Your task to perform on an android device: Go to Yahoo.com Image 0: 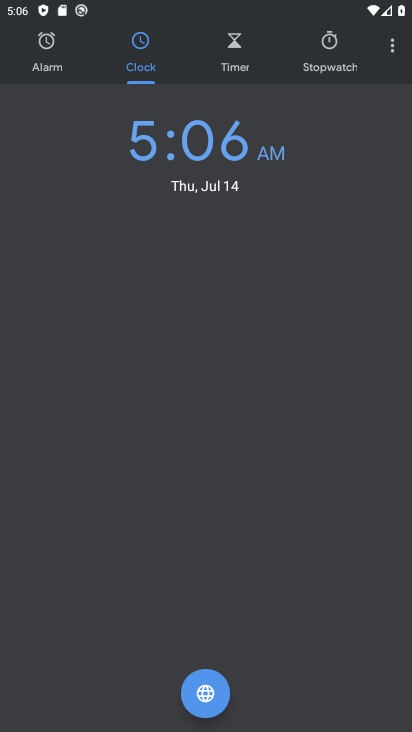
Step 0: press home button
Your task to perform on an android device: Go to Yahoo.com Image 1: 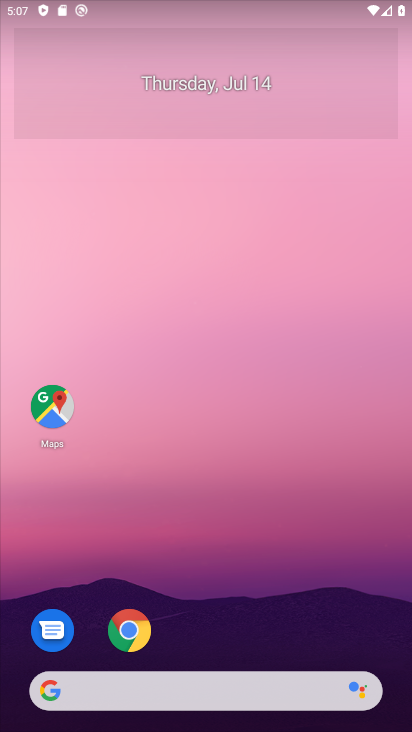
Step 1: click (43, 686)
Your task to perform on an android device: Go to Yahoo.com Image 2: 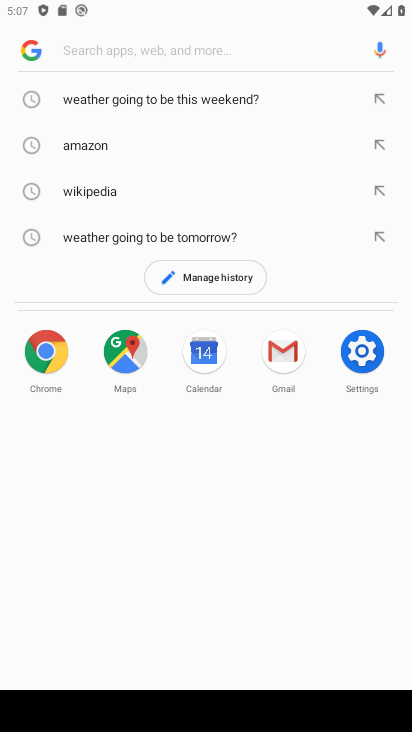
Step 2: type "Yahoo.com"
Your task to perform on an android device: Go to Yahoo.com Image 3: 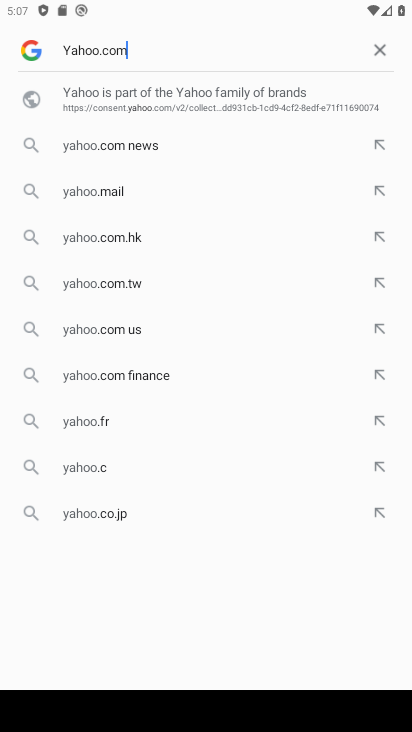
Step 3: press enter
Your task to perform on an android device: Go to Yahoo.com Image 4: 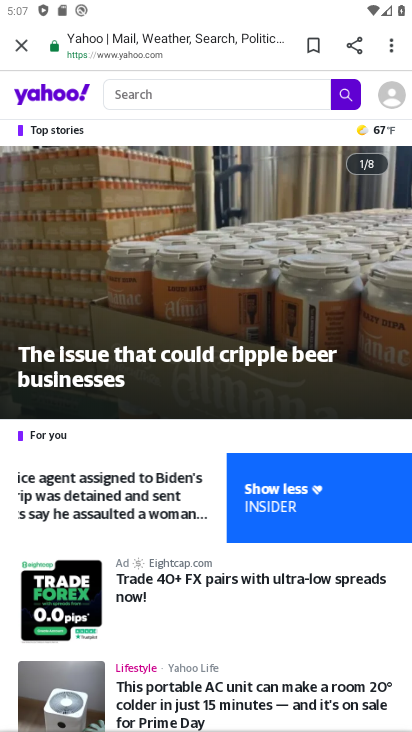
Step 4: task complete